Your task to perform on an android device: Open wifi settings Image 0: 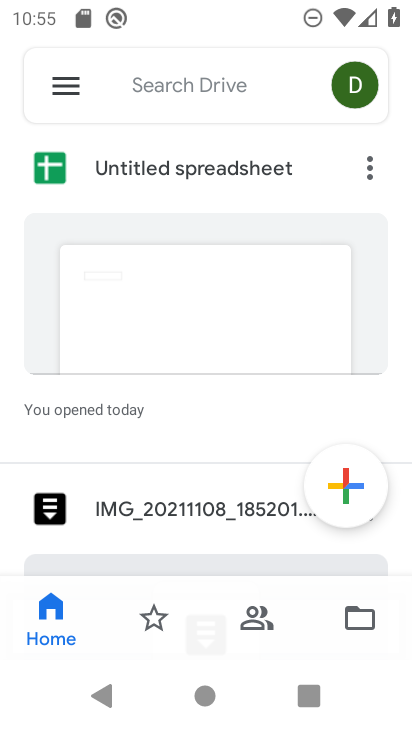
Step 0: press home button
Your task to perform on an android device: Open wifi settings Image 1: 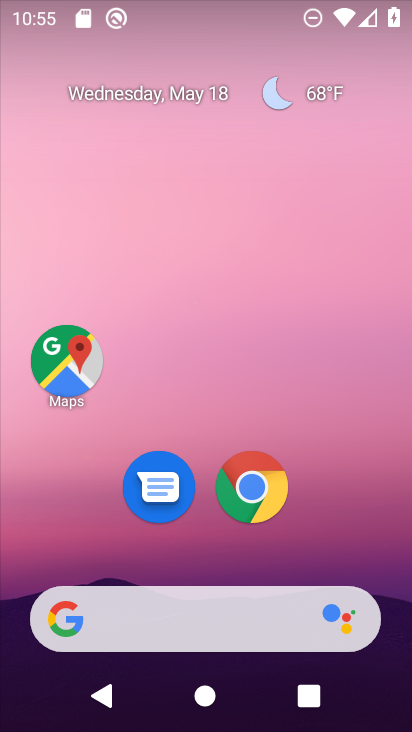
Step 1: drag from (353, 502) to (311, 204)
Your task to perform on an android device: Open wifi settings Image 2: 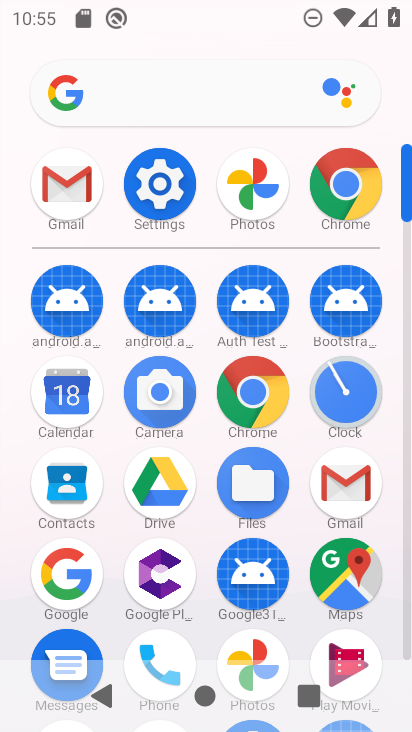
Step 2: click (160, 207)
Your task to perform on an android device: Open wifi settings Image 3: 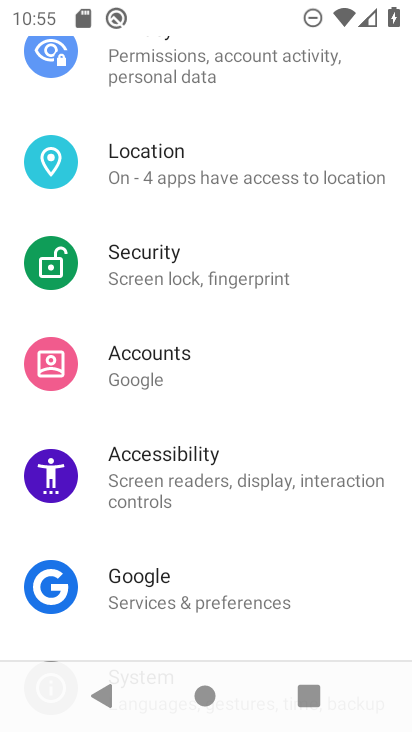
Step 3: drag from (205, 157) to (214, 451)
Your task to perform on an android device: Open wifi settings Image 4: 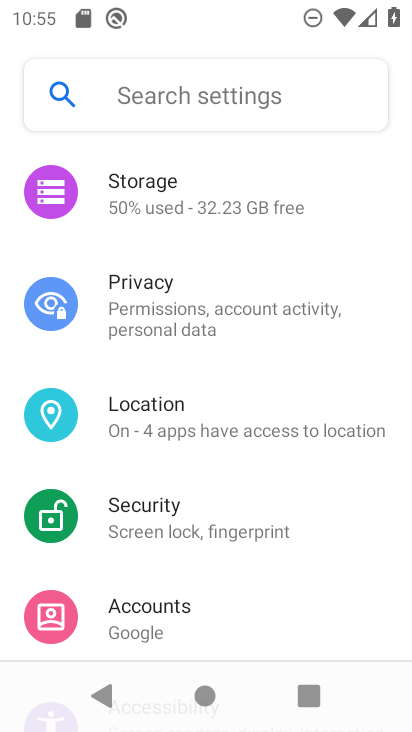
Step 4: drag from (219, 227) to (230, 511)
Your task to perform on an android device: Open wifi settings Image 5: 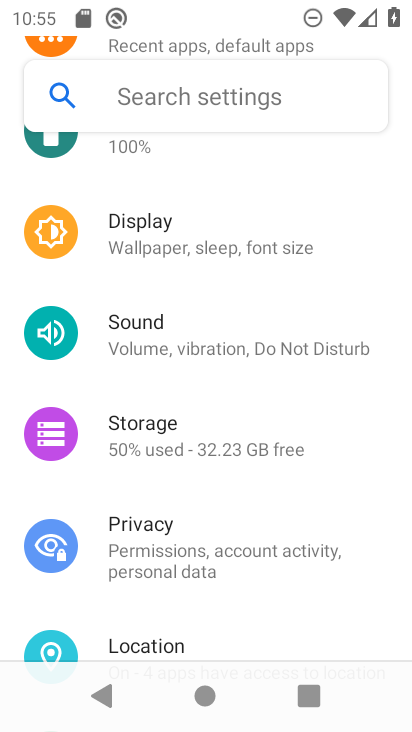
Step 5: drag from (217, 257) to (255, 560)
Your task to perform on an android device: Open wifi settings Image 6: 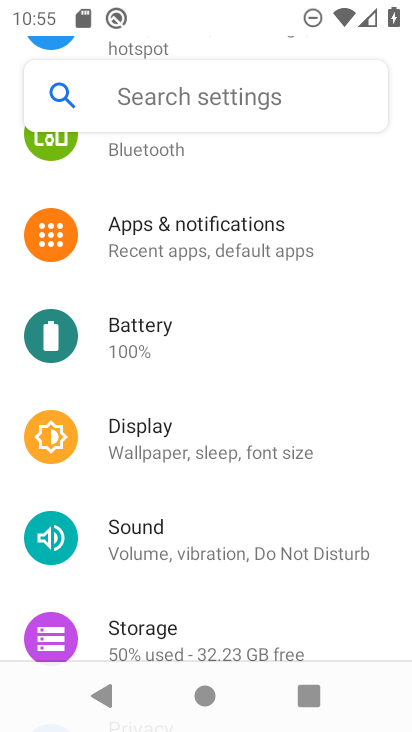
Step 6: drag from (204, 202) to (255, 605)
Your task to perform on an android device: Open wifi settings Image 7: 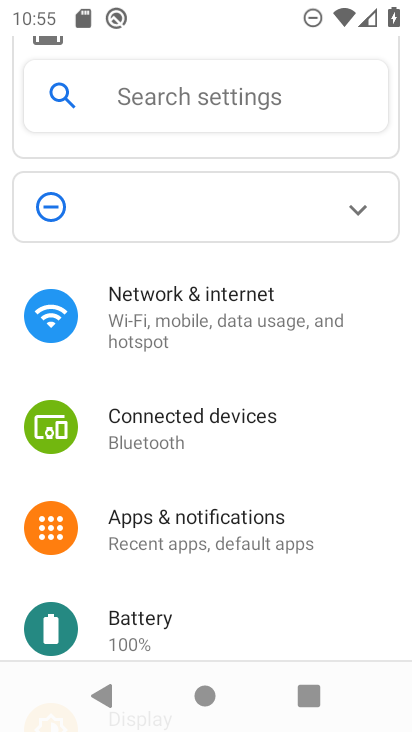
Step 7: click (182, 307)
Your task to perform on an android device: Open wifi settings Image 8: 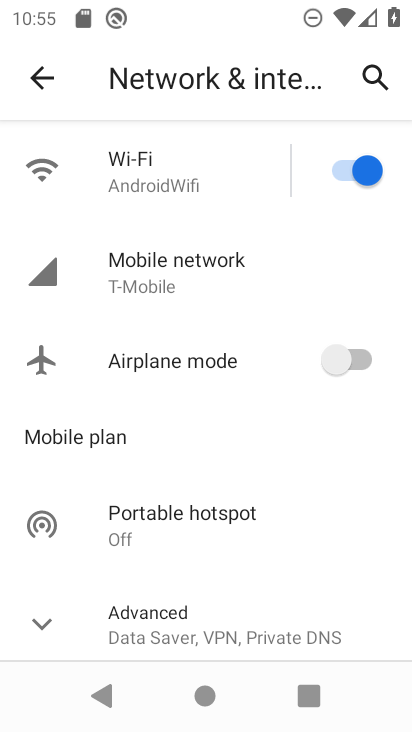
Step 8: click (209, 168)
Your task to perform on an android device: Open wifi settings Image 9: 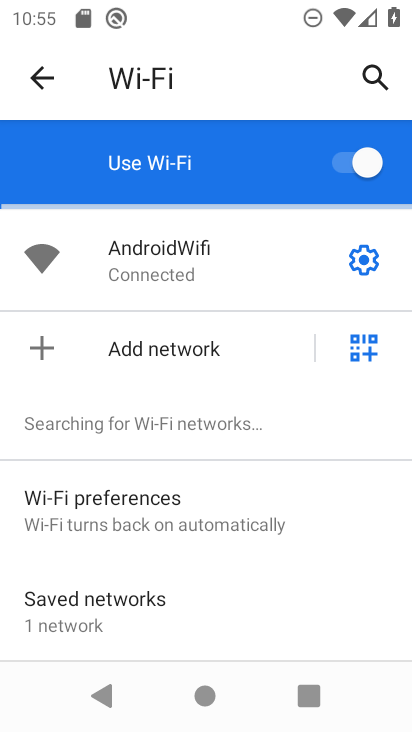
Step 9: click (366, 268)
Your task to perform on an android device: Open wifi settings Image 10: 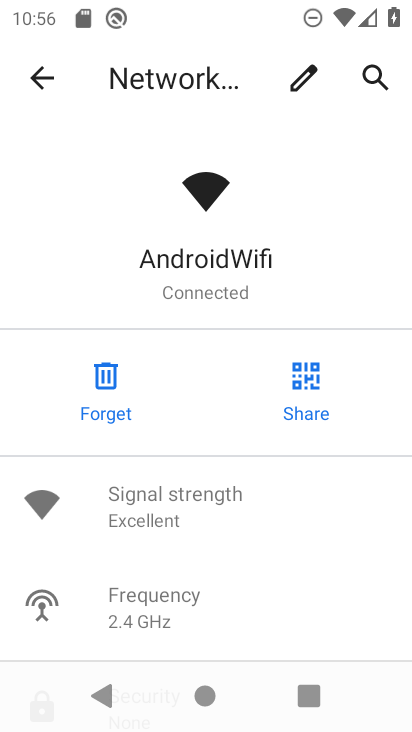
Step 10: task complete